Your task to perform on an android device: Search for Italian restaurants on Maps Image 0: 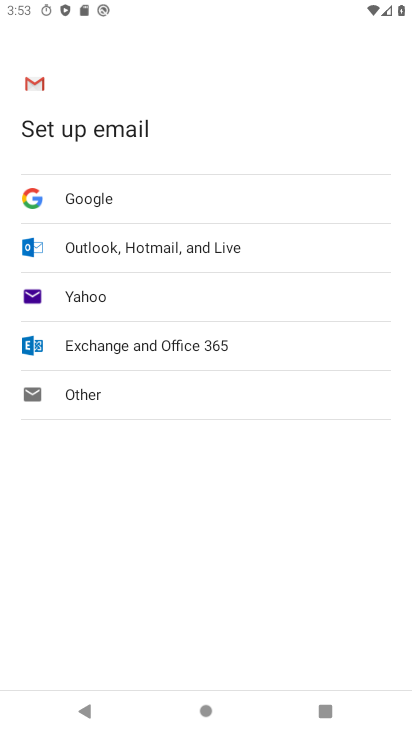
Step 0: press home button
Your task to perform on an android device: Search for Italian restaurants on Maps Image 1: 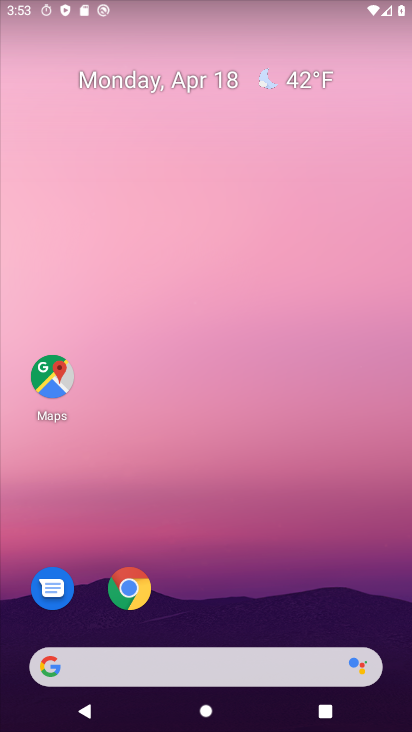
Step 1: click (55, 376)
Your task to perform on an android device: Search for Italian restaurants on Maps Image 2: 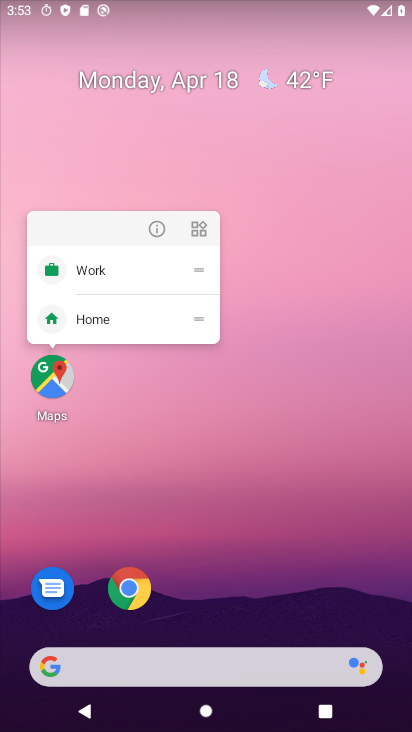
Step 2: click (66, 372)
Your task to perform on an android device: Search for Italian restaurants on Maps Image 3: 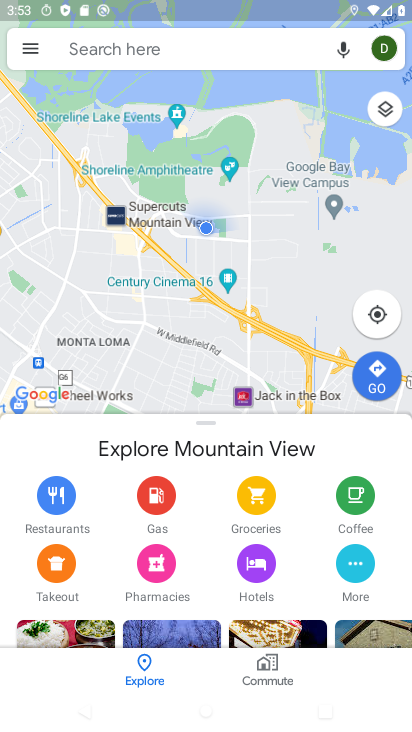
Step 3: click (164, 48)
Your task to perform on an android device: Search for Italian restaurants on Maps Image 4: 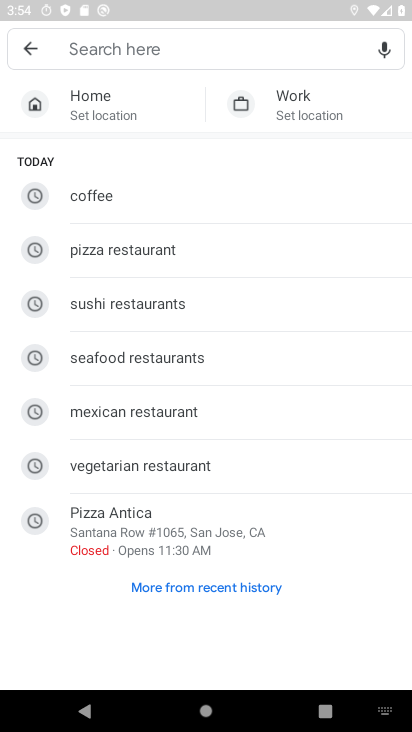
Step 4: type "italian restaurant"
Your task to perform on an android device: Search for Italian restaurants on Maps Image 5: 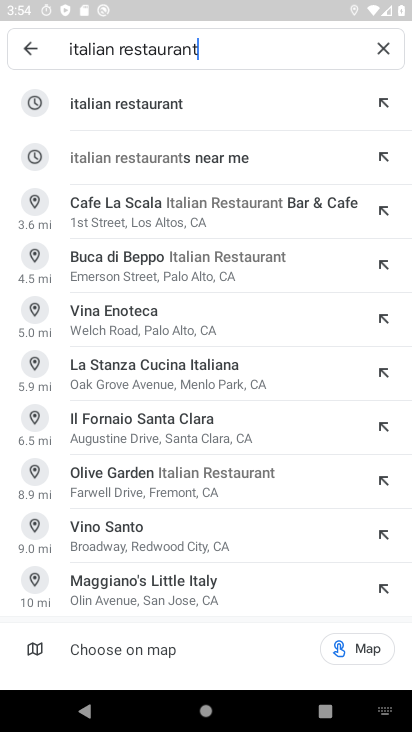
Step 5: click (176, 116)
Your task to perform on an android device: Search for Italian restaurants on Maps Image 6: 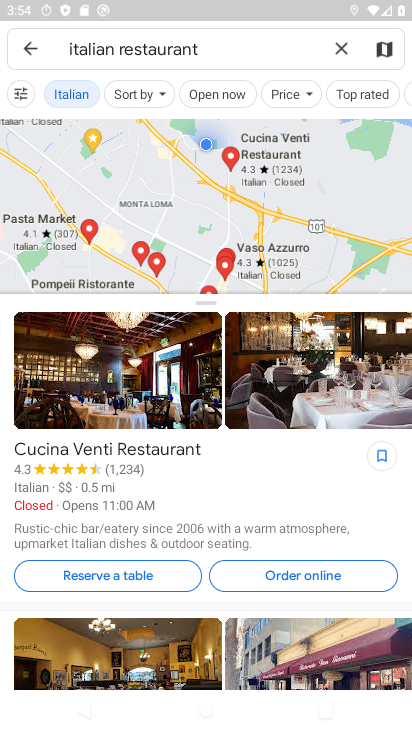
Step 6: task complete